Your task to perform on an android device: When is my next meeting? Image 0: 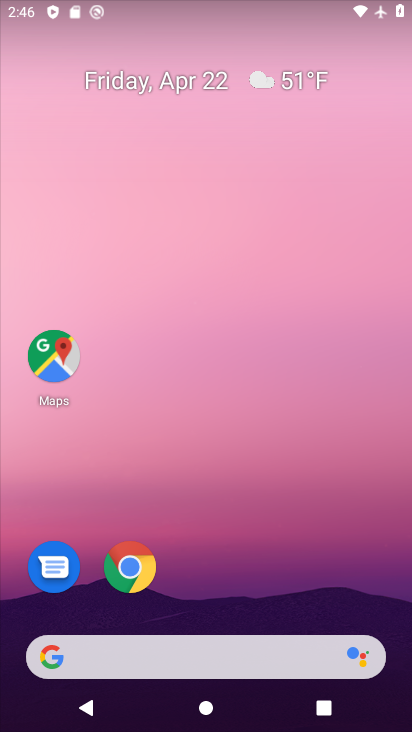
Step 0: drag from (262, 690) to (12, 18)
Your task to perform on an android device: When is my next meeting? Image 1: 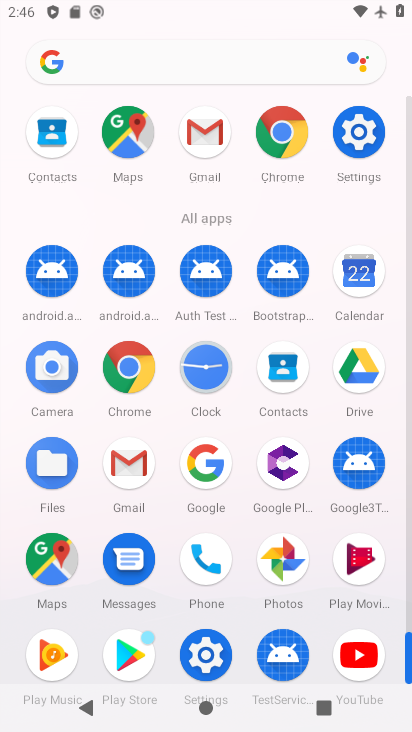
Step 1: click (367, 267)
Your task to perform on an android device: When is my next meeting? Image 2: 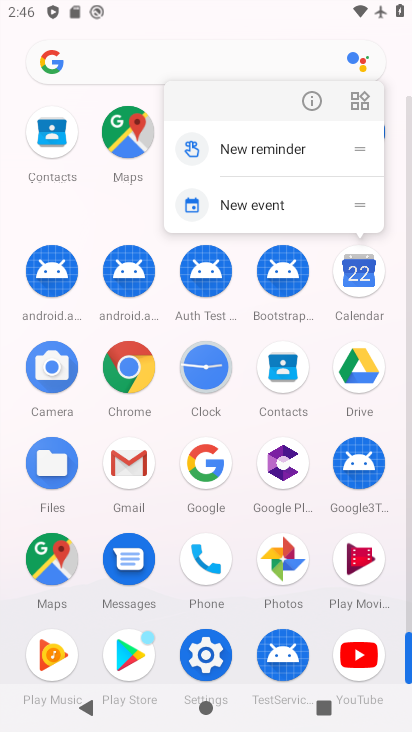
Step 2: click (367, 276)
Your task to perform on an android device: When is my next meeting? Image 3: 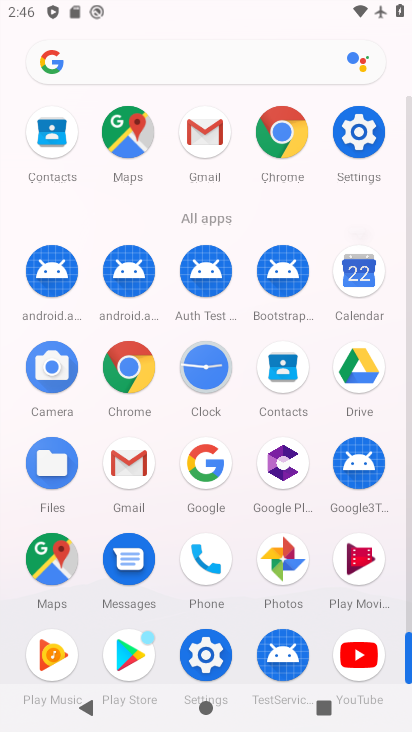
Step 3: click (367, 276)
Your task to perform on an android device: When is my next meeting? Image 4: 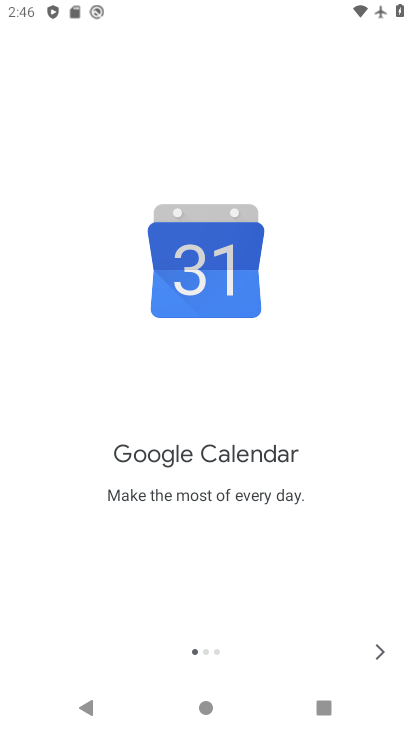
Step 4: click (367, 276)
Your task to perform on an android device: When is my next meeting? Image 5: 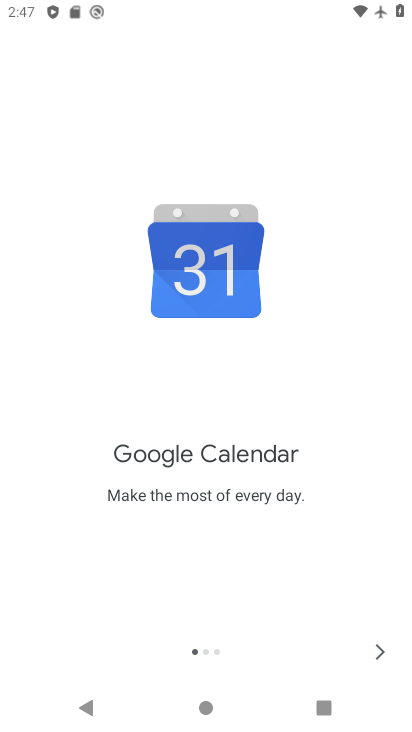
Step 5: click (376, 648)
Your task to perform on an android device: When is my next meeting? Image 6: 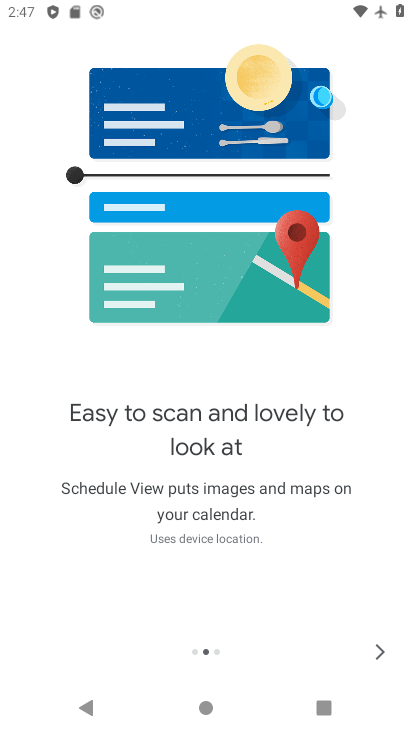
Step 6: click (371, 648)
Your task to perform on an android device: When is my next meeting? Image 7: 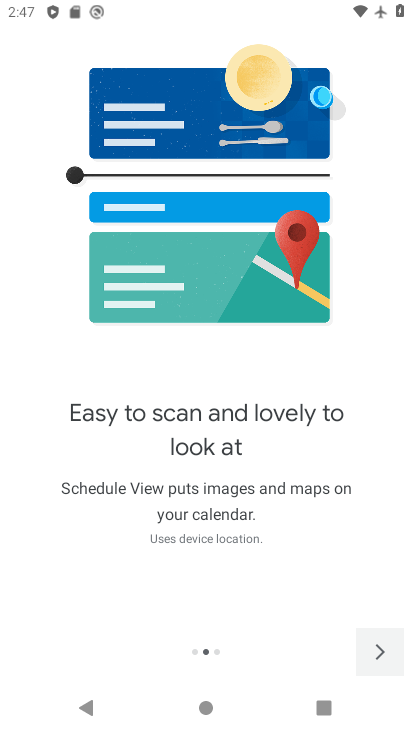
Step 7: click (378, 644)
Your task to perform on an android device: When is my next meeting? Image 8: 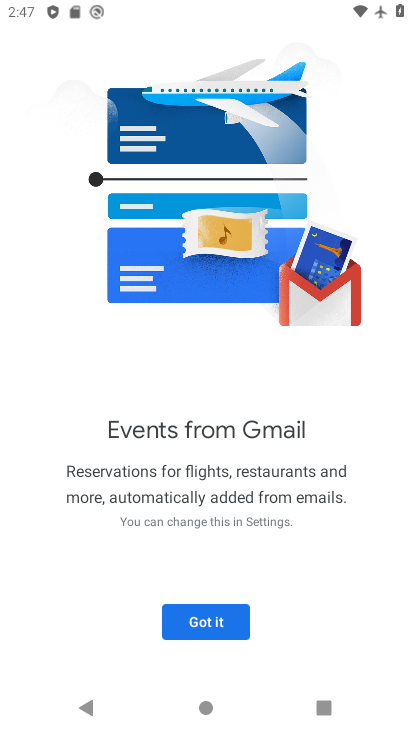
Step 8: click (205, 614)
Your task to perform on an android device: When is my next meeting? Image 9: 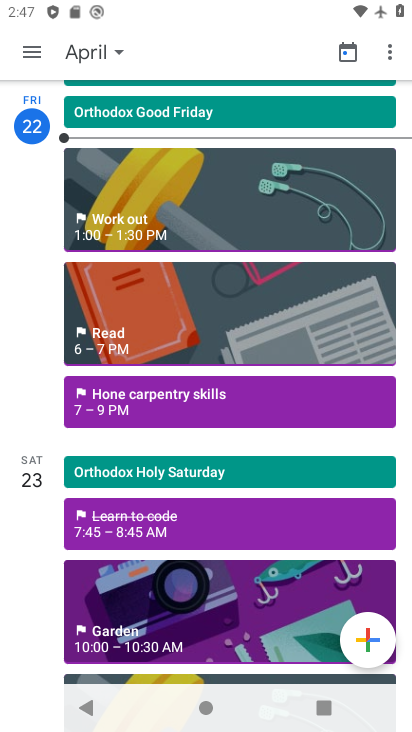
Step 9: drag from (30, 49) to (47, 289)
Your task to perform on an android device: When is my next meeting? Image 10: 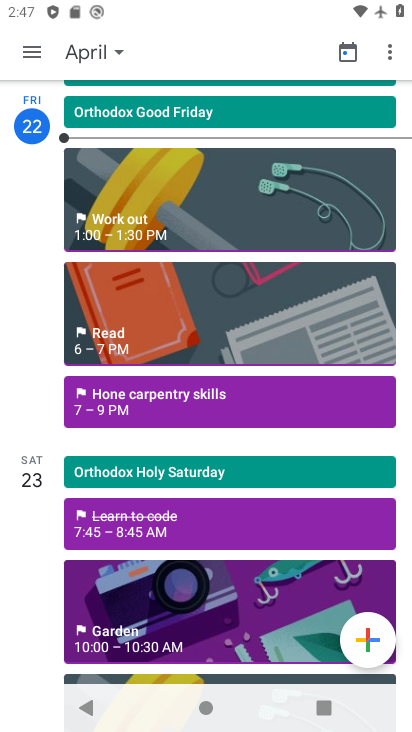
Step 10: drag from (181, 435) to (97, 231)
Your task to perform on an android device: When is my next meeting? Image 11: 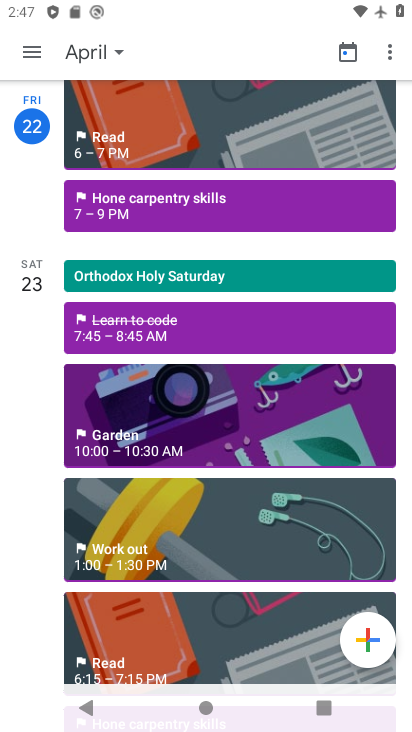
Step 11: drag from (188, 526) to (167, 249)
Your task to perform on an android device: When is my next meeting? Image 12: 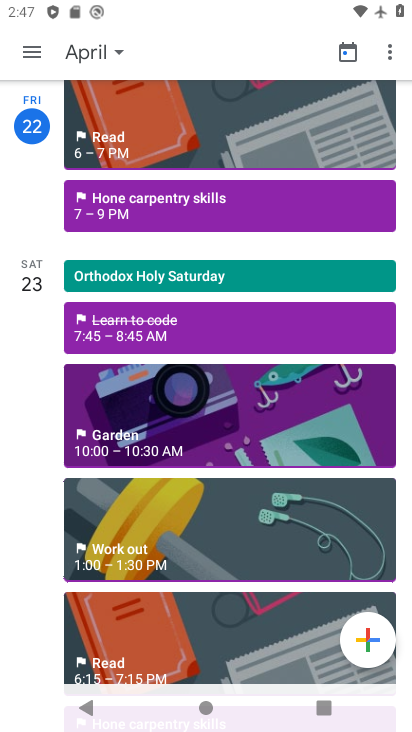
Step 12: drag from (204, 555) to (89, 137)
Your task to perform on an android device: When is my next meeting? Image 13: 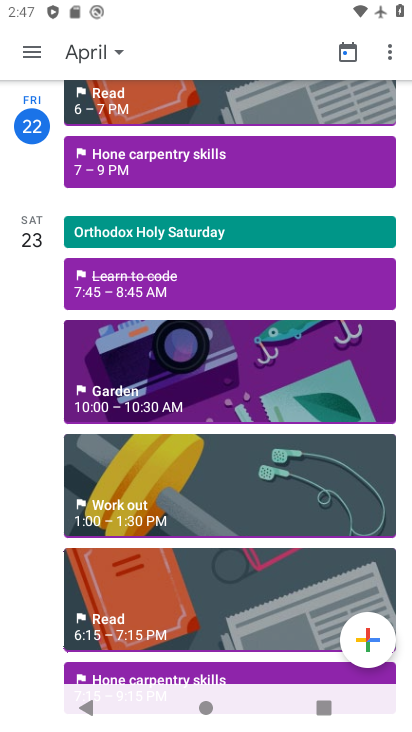
Step 13: drag from (188, 489) to (137, 264)
Your task to perform on an android device: When is my next meeting? Image 14: 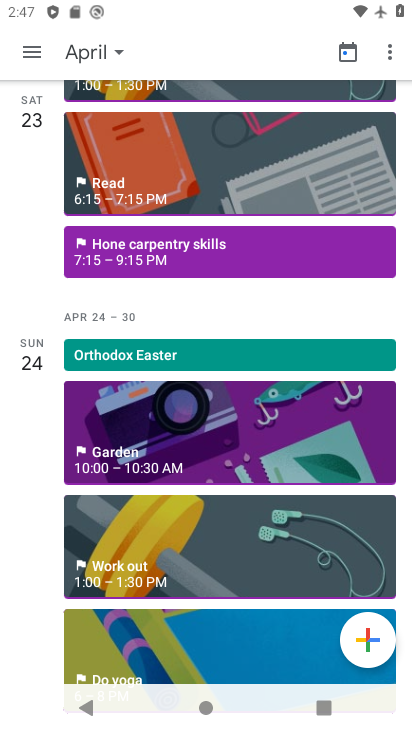
Step 14: drag from (141, 499) to (95, 213)
Your task to perform on an android device: When is my next meeting? Image 15: 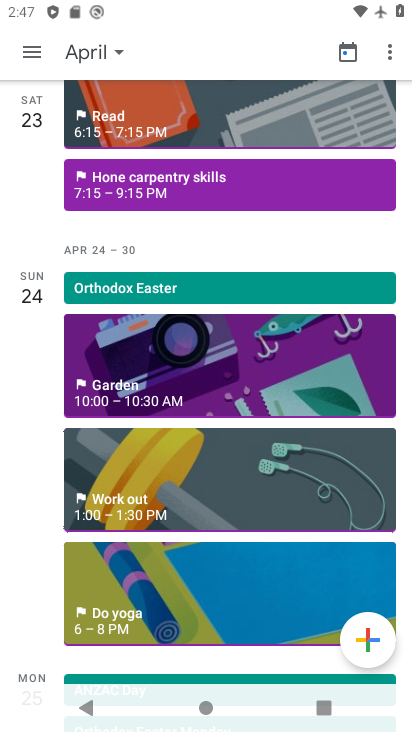
Step 15: drag from (141, 437) to (60, 188)
Your task to perform on an android device: When is my next meeting? Image 16: 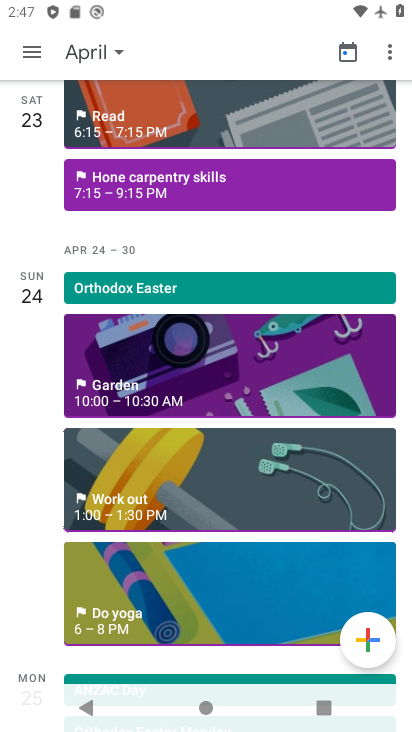
Step 16: drag from (198, 439) to (204, 296)
Your task to perform on an android device: When is my next meeting? Image 17: 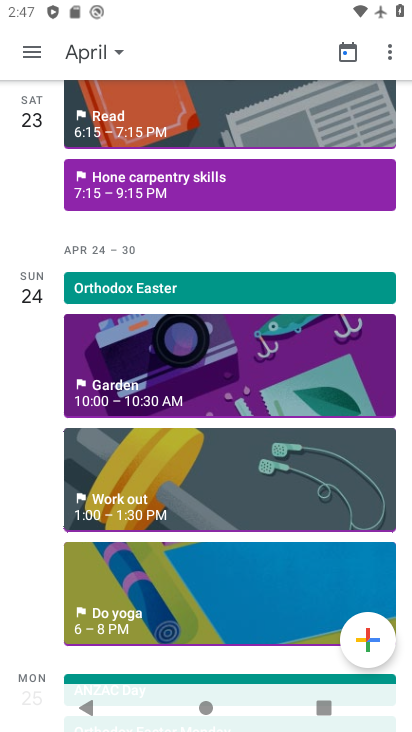
Step 17: drag from (244, 583) to (228, 200)
Your task to perform on an android device: When is my next meeting? Image 18: 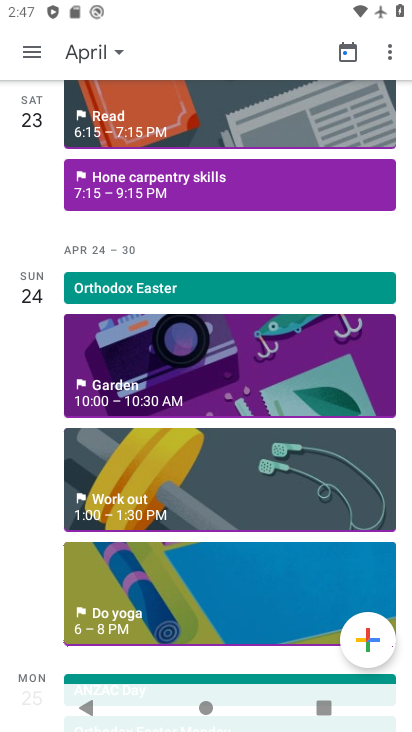
Step 18: drag from (177, 498) to (145, 203)
Your task to perform on an android device: When is my next meeting? Image 19: 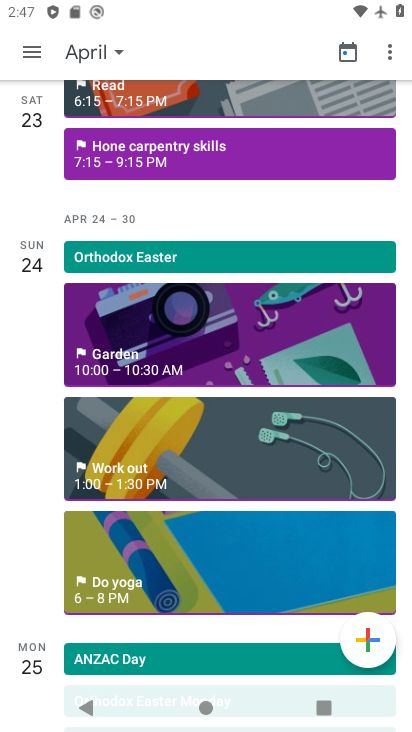
Step 19: drag from (224, 446) to (177, 223)
Your task to perform on an android device: When is my next meeting? Image 20: 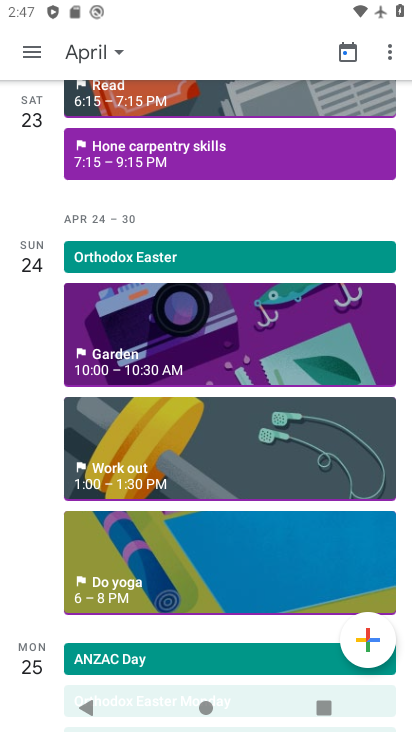
Step 20: click (132, 118)
Your task to perform on an android device: When is my next meeting? Image 21: 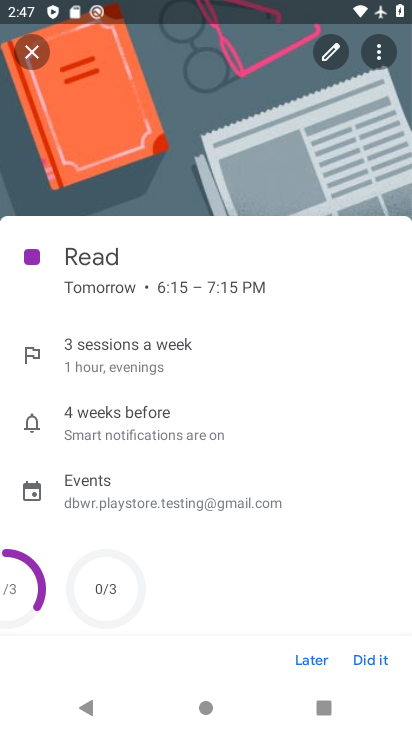
Step 21: drag from (187, 256) to (179, 223)
Your task to perform on an android device: When is my next meeting? Image 22: 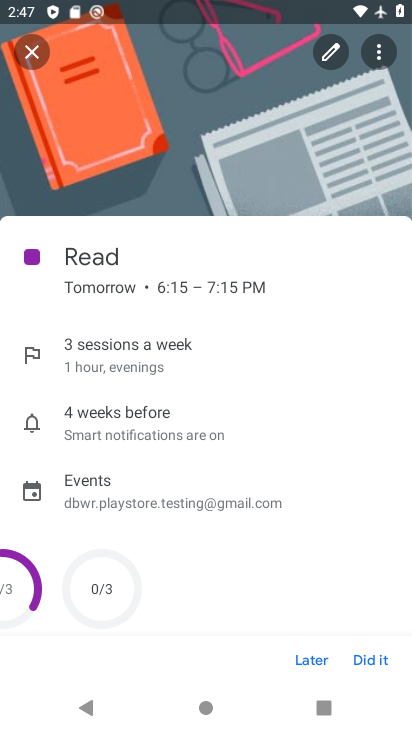
Step 22: click (38, 45)
Your task to perform on an android device: When is my next meeting? Image 23: 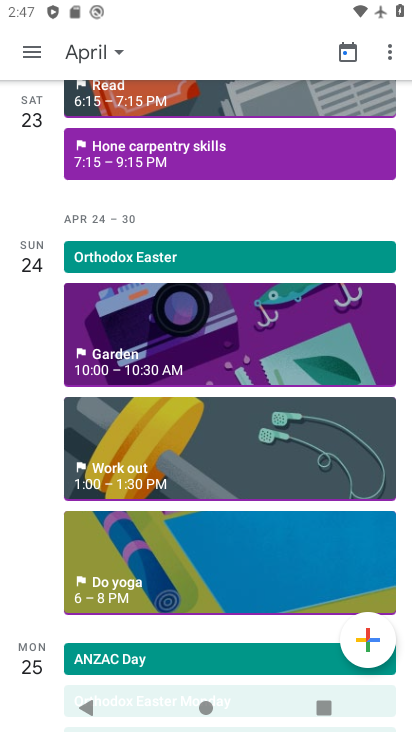
Step 23: drag from (188, 559) to (117, 4)
Your task to perform on an android device: When is my next meeting? Image 24: 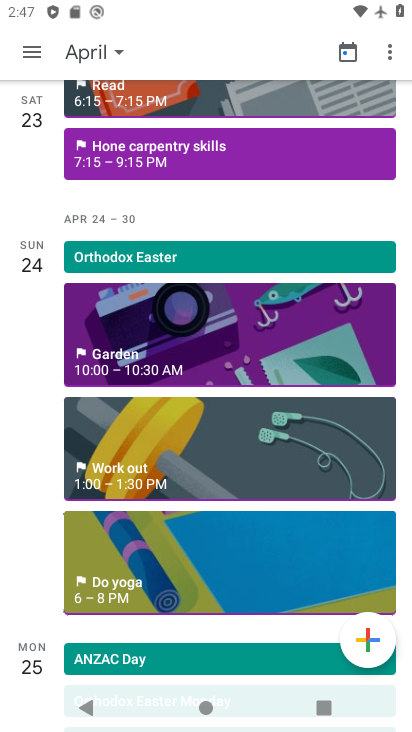
Step 24: drag from (216, 352) to (400, 161)
Your task to perform on an android device: When is my next meeting? Image 25: 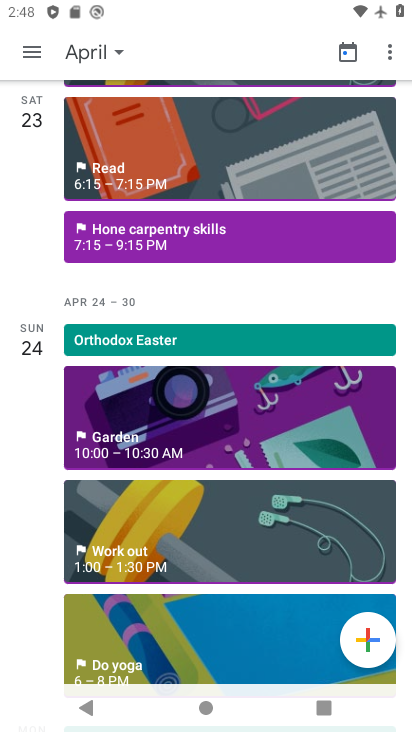
Step 25: click (51, 75)
Your task to perform on an android device: When is my next meeting? Image 26: 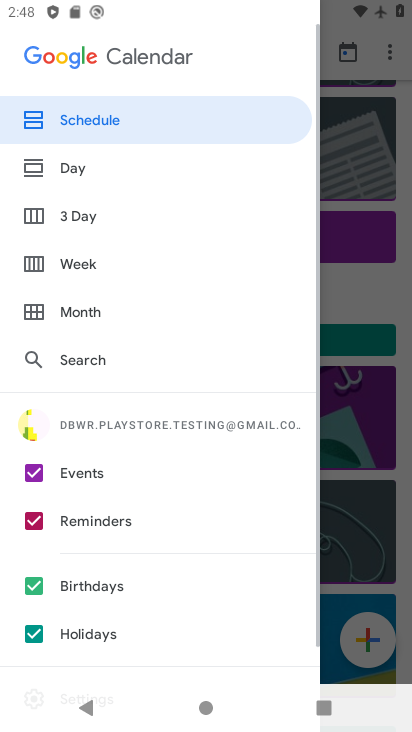
Step 26: drag from (150, 411) to (178, 142)
Your task to perform on an android device: When is my next meeting? Image 27: 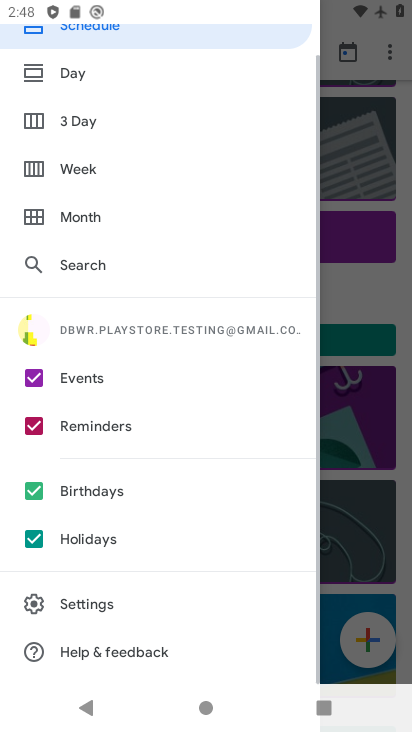
Step 27: drag from (190, 247) to (55, 90)
Your task to perform on an android device: When is my next meeting? Image 28: 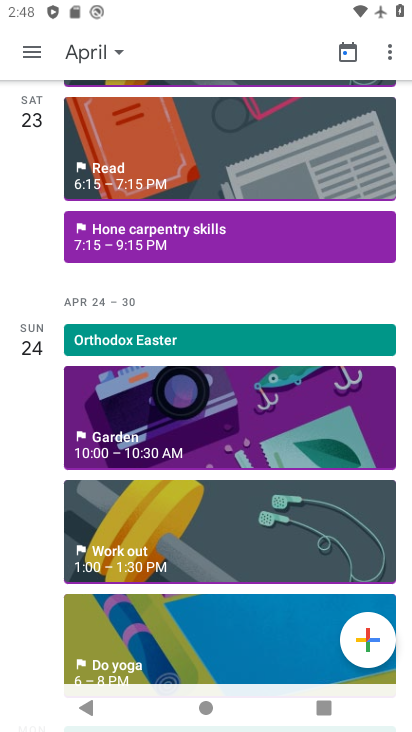
Step 28: click (167, 219)
Your task to perform on an android device: When is my next meeting? Image 29: 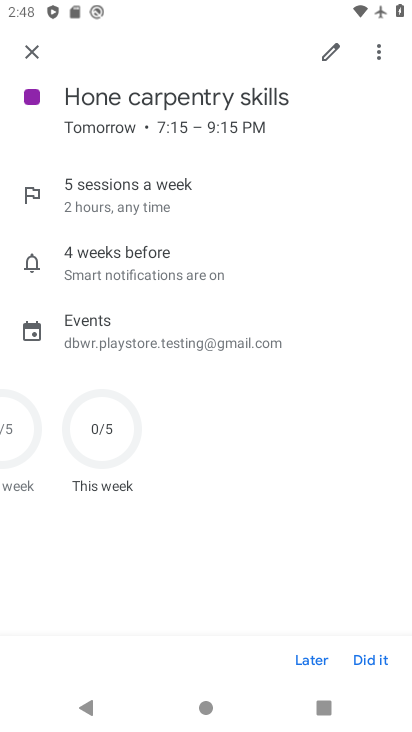
Step 29: click (27, 49)
Your task to perform on an android device: When is my next meeting? Image 30: 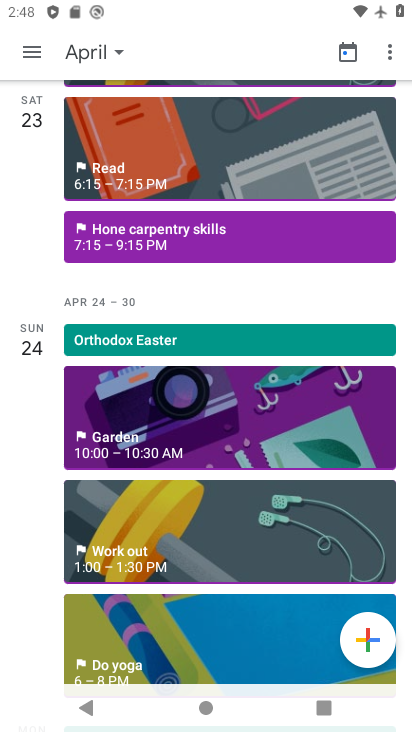
Step 30: task complete